Your task to perform on an android device: Open display settings Image 0: 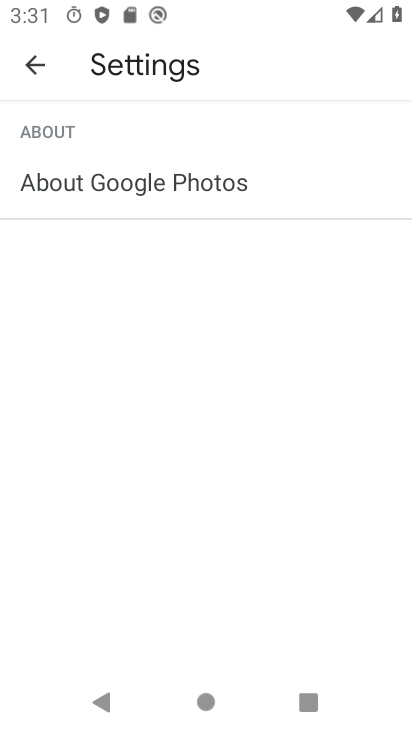
Step 0: press home button
Your task to perform on an android device: Open display settings Image 1: 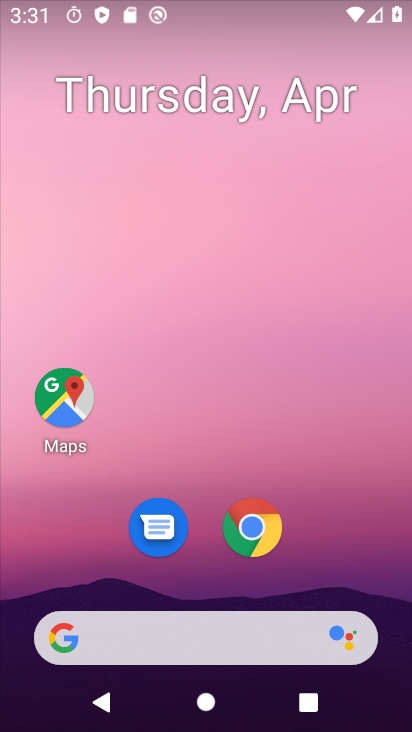
Step 1: drag from (316, 547) to (292, 176)
Your task to perform on an android device: Open display settings Image 2: 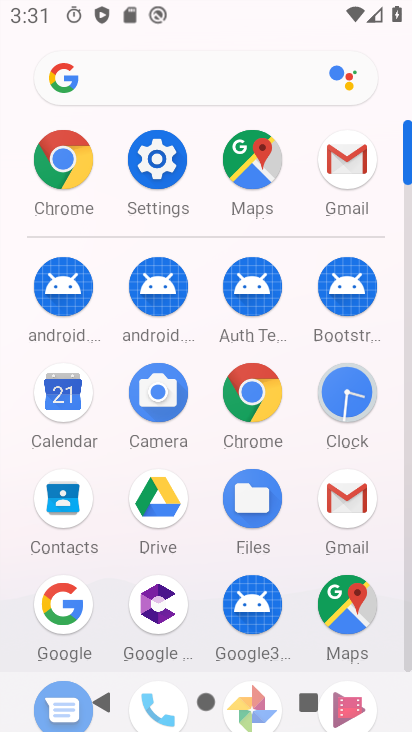
Step 2: click (162, 175)
Your task to perform on an android device: Open display settings Image 3: 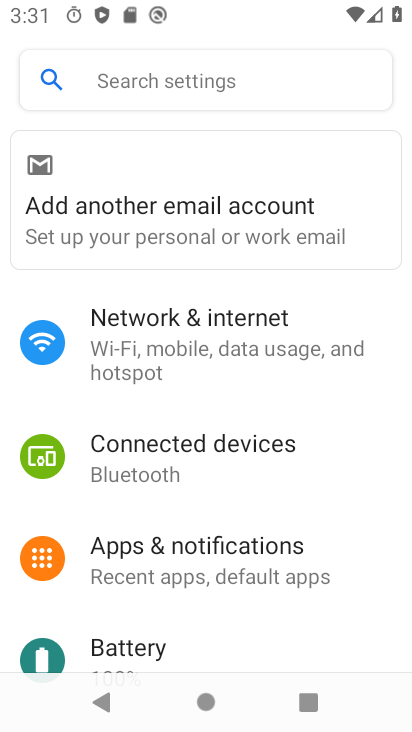
Step 3: drag from (245, 546) to (272, 180)
Your task to perform on an android device: Open display settings Image 4: 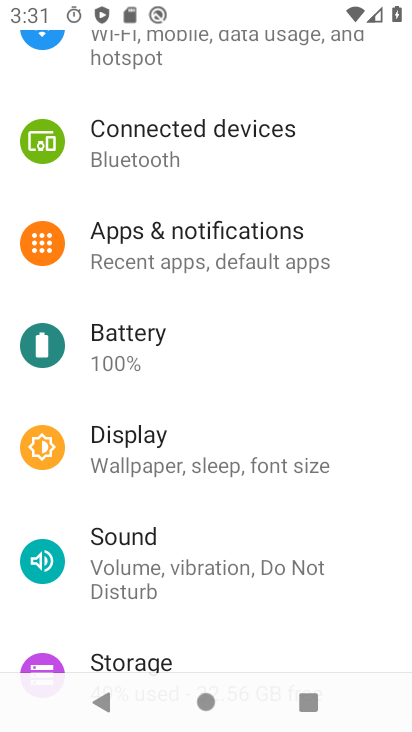
Step 4: click (185, 464)
Your task to perform on an android device: Open display settings Image 5: 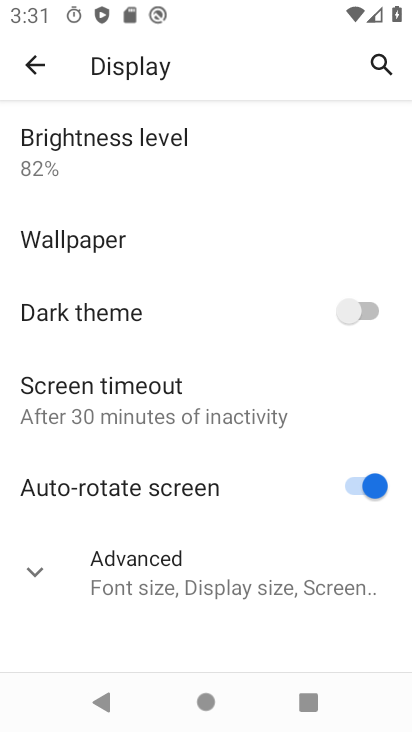
Step 5: task complete